Your task to perform on an android device: open a new tab in the chrome app Image 0: 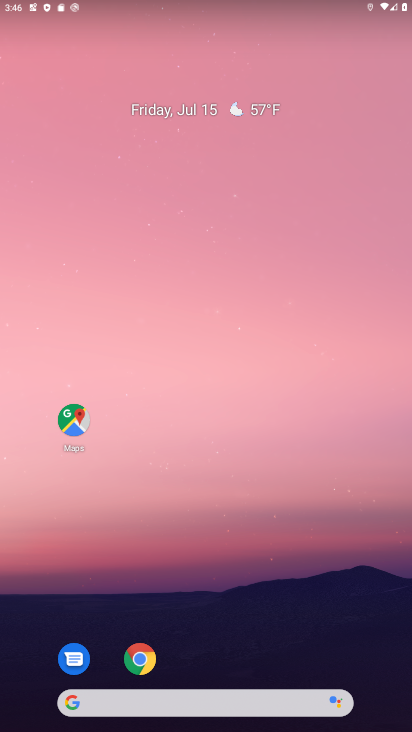
Step 0: click (172, 268)
Your task to perform on an android device: open a new tab in the chrome app Image 1: 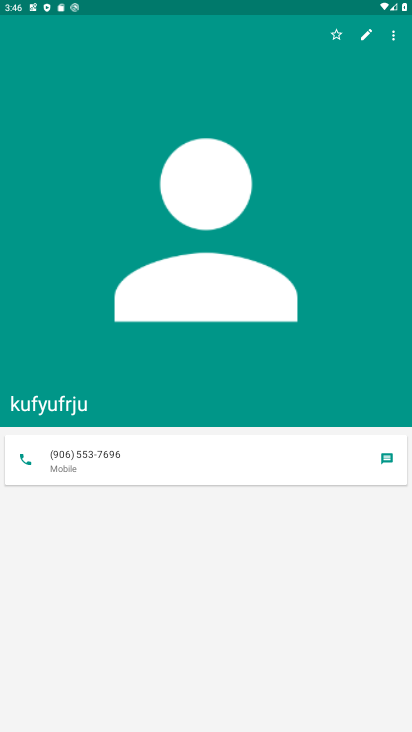
Step 1: press home button
Your task to perform on an android device: open a new tab in the chrome app Image 2: 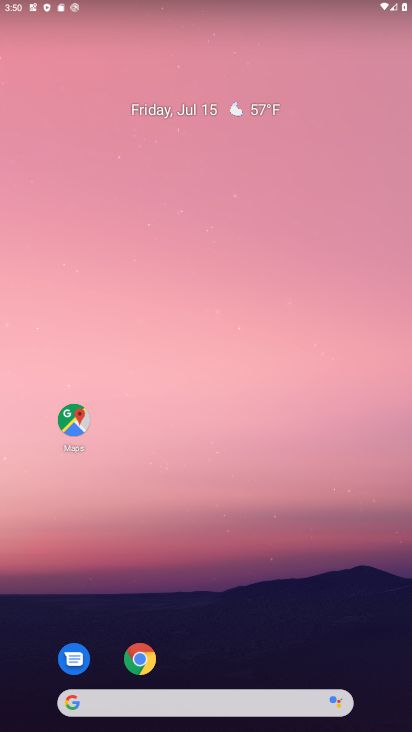
Step 2: click (144, 671)
Your task to perform on an android device: open a new tab in the chrome app Image 3: 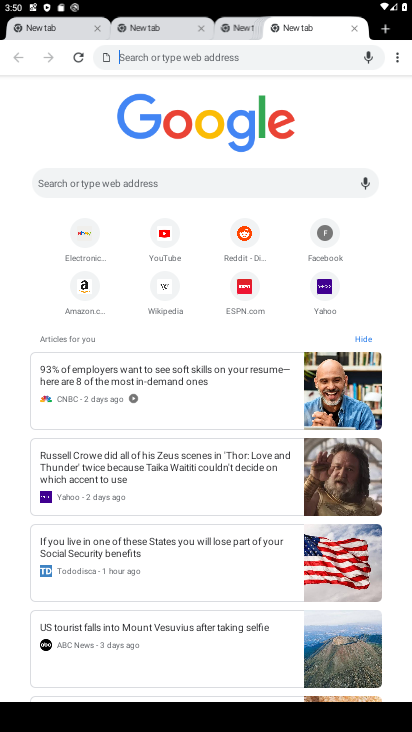
Step 3: click (391, 63)
Your task to perform on an android device: open a new tab in the chrome app Image 4: 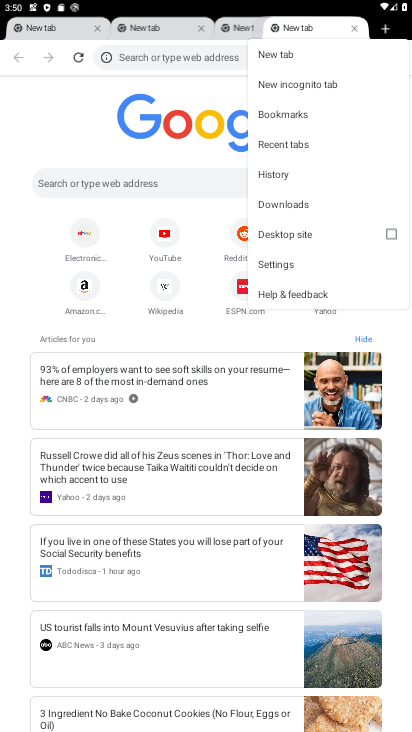
Step 4: click (285, 61)
Your task to perform on an android device: open a new tab in the chrome app Image 5: 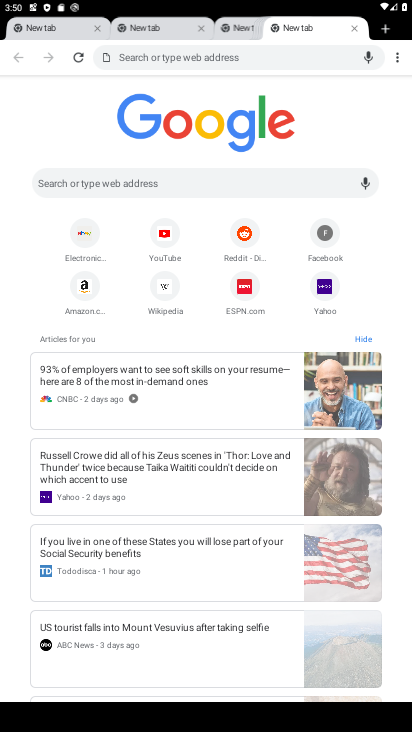
Step 5: task complete